Your task to perform on an android device: Open the calendar and show me this week's events? Image 0: 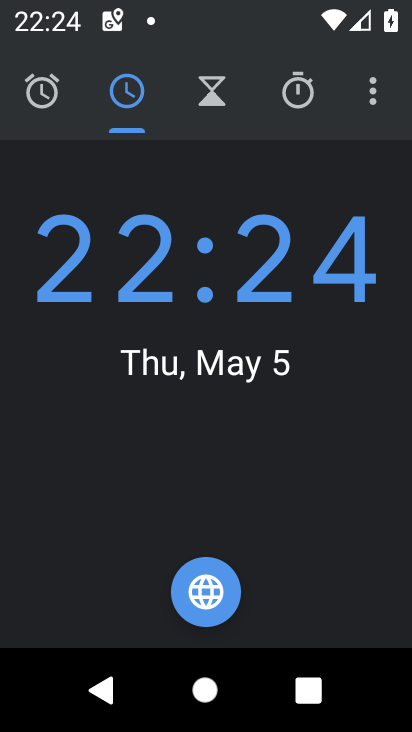
Step 0: press home button
Your task to perform on an android device: Open the calendar and show me this week's events? Image 1: 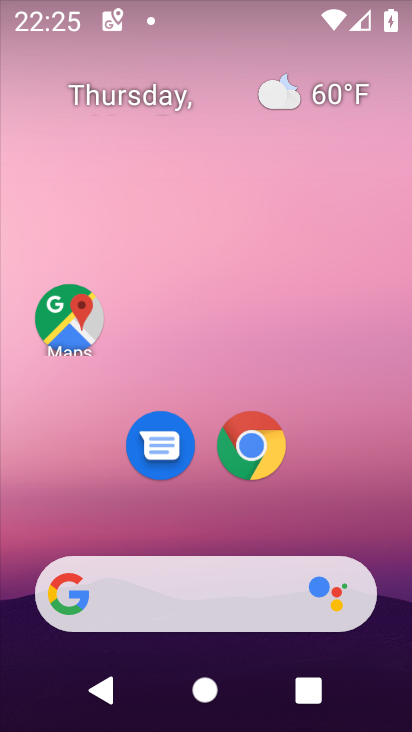
Step 1: drag from (223, 594) to (146, 228)
Your task to perform on an android device: Open the calendar and show me this week's events? Image 2: 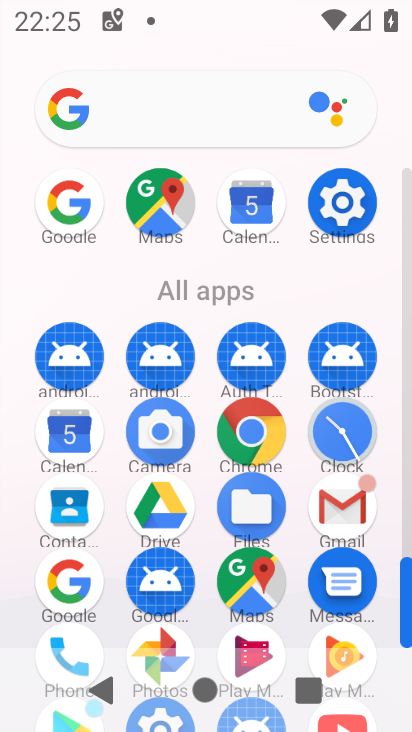
Step 2: click (76, 443)
Your task to perform on an android device: Open the calendar and show me this week's events? Image 3: 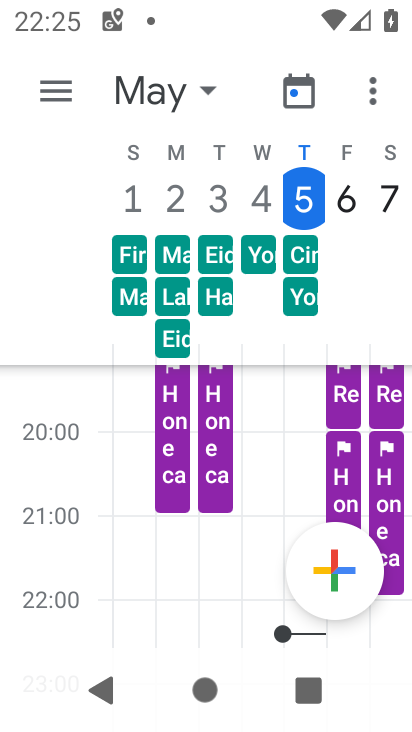
Step 3: task complete